Your task to perform on an android device: turn pop-ups off in chrome Image 0: 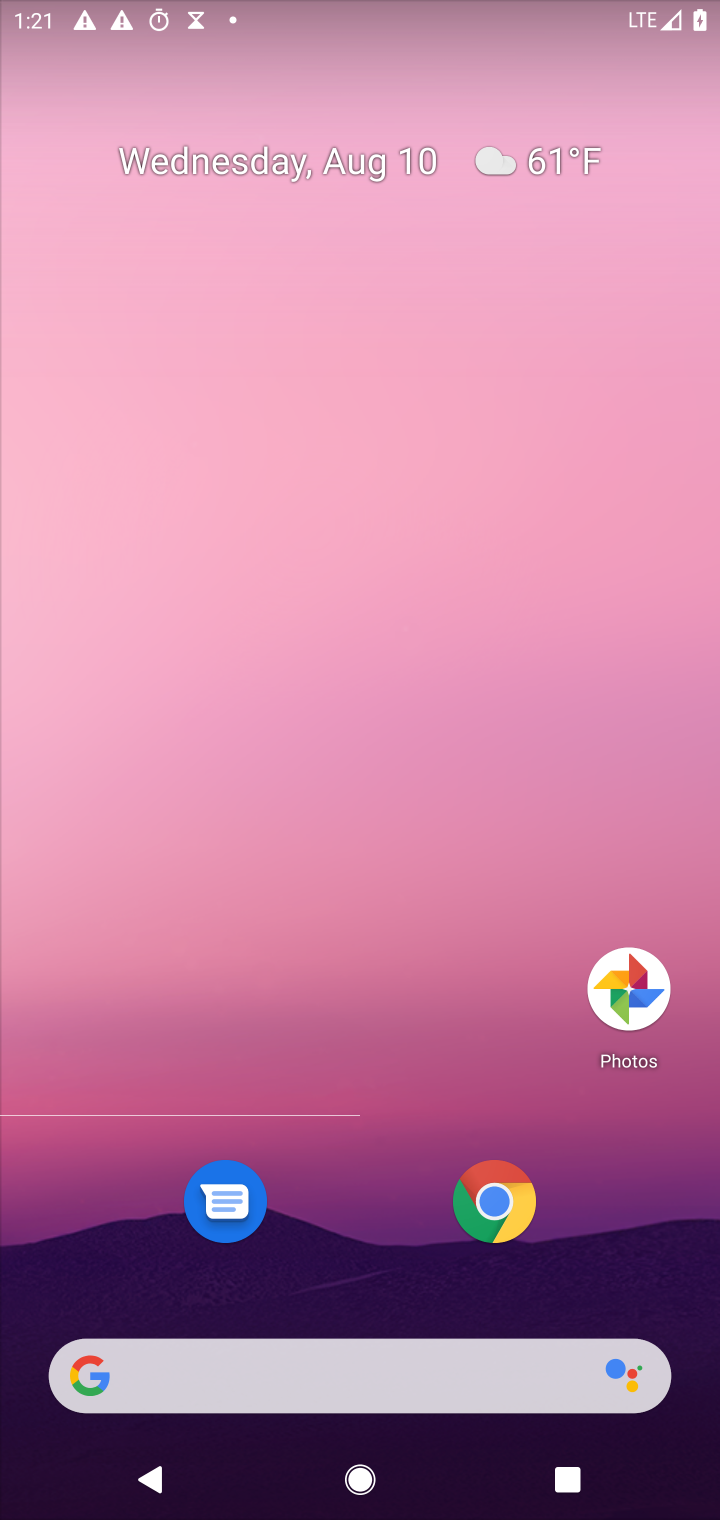
Step 0: press home button
Your task to perform on an android device: turn pop-ups off in chrome Image 1: 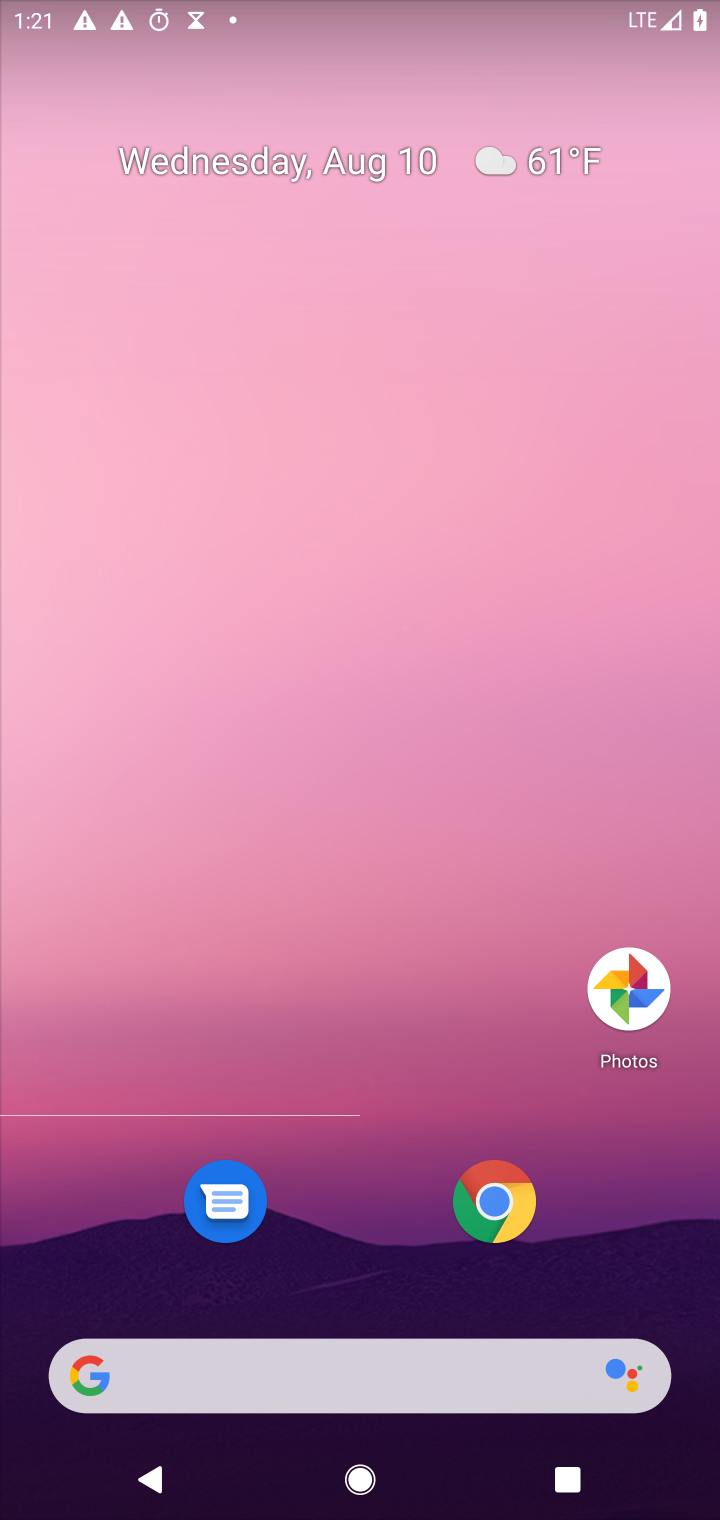
Step 1: click (464, 1190)
Your task to perform on an android device: turn pop-ups off in chrome Image 2: 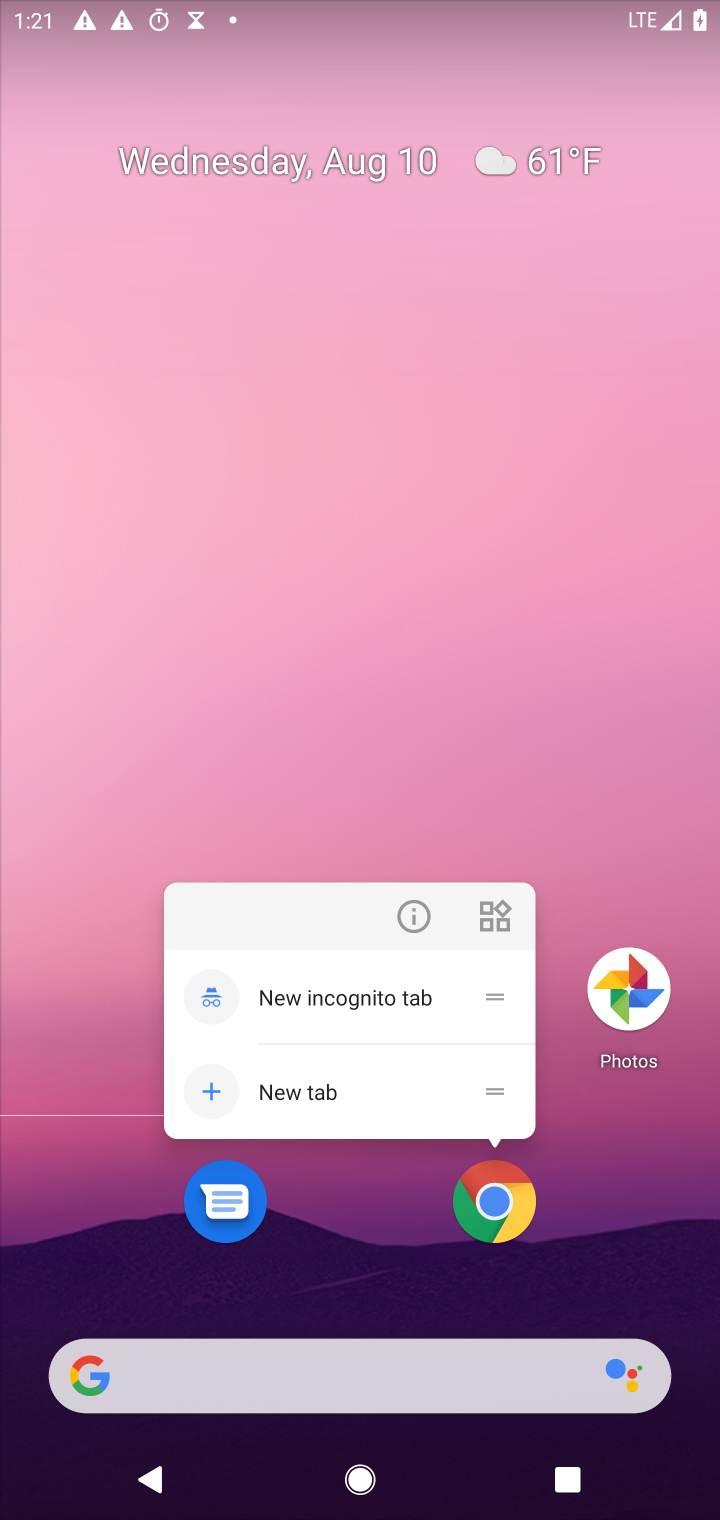
Step 2: click (468, 1177)
Your task to perform on an android device: turn pop-ups off in chrome Image 3: 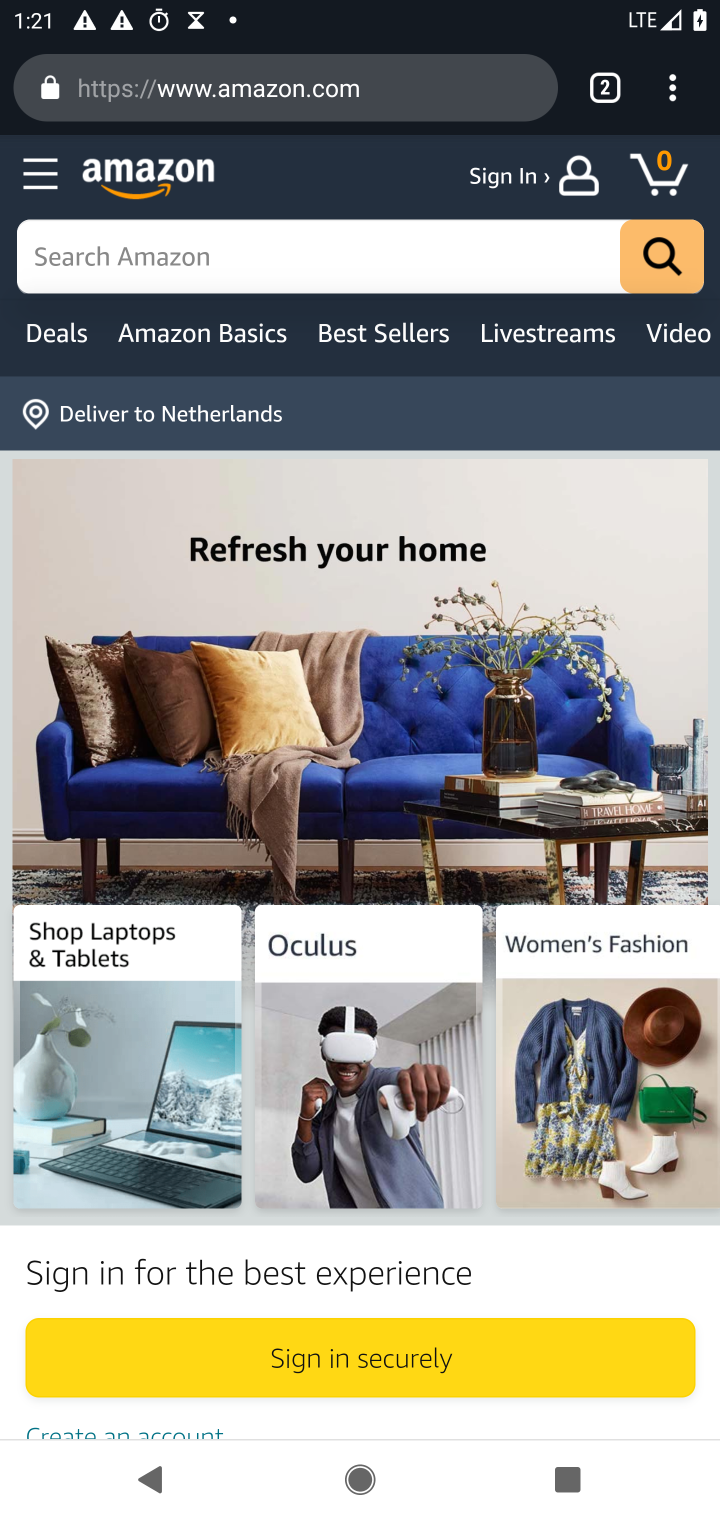
Step 3: drag from (670, 91) to (350, 1075)
Your task to perform on an android device: turn pop-ups off in chrome Image 4: 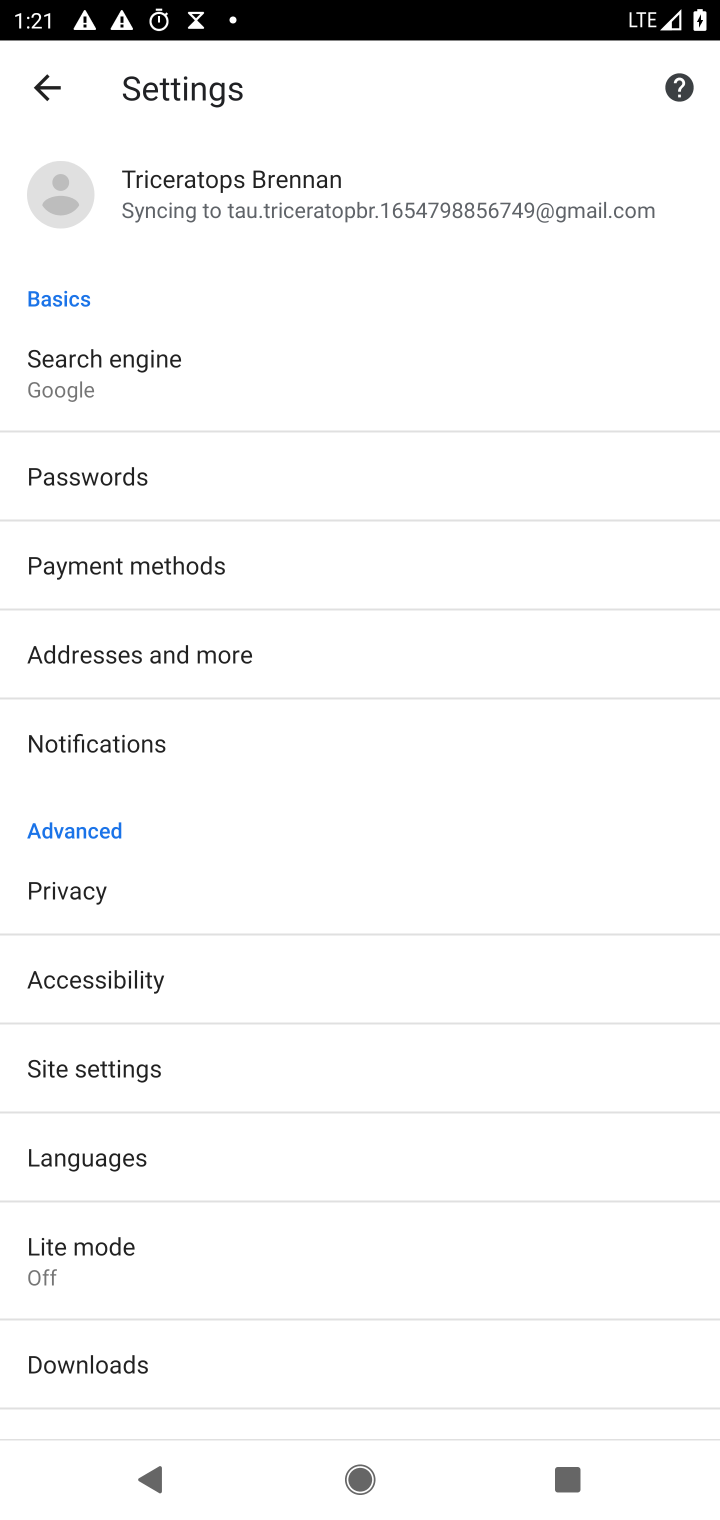
Step 4: click (81, 1072)
Your task to perform on an android device: turn pop-ups off in chrome Image 5: 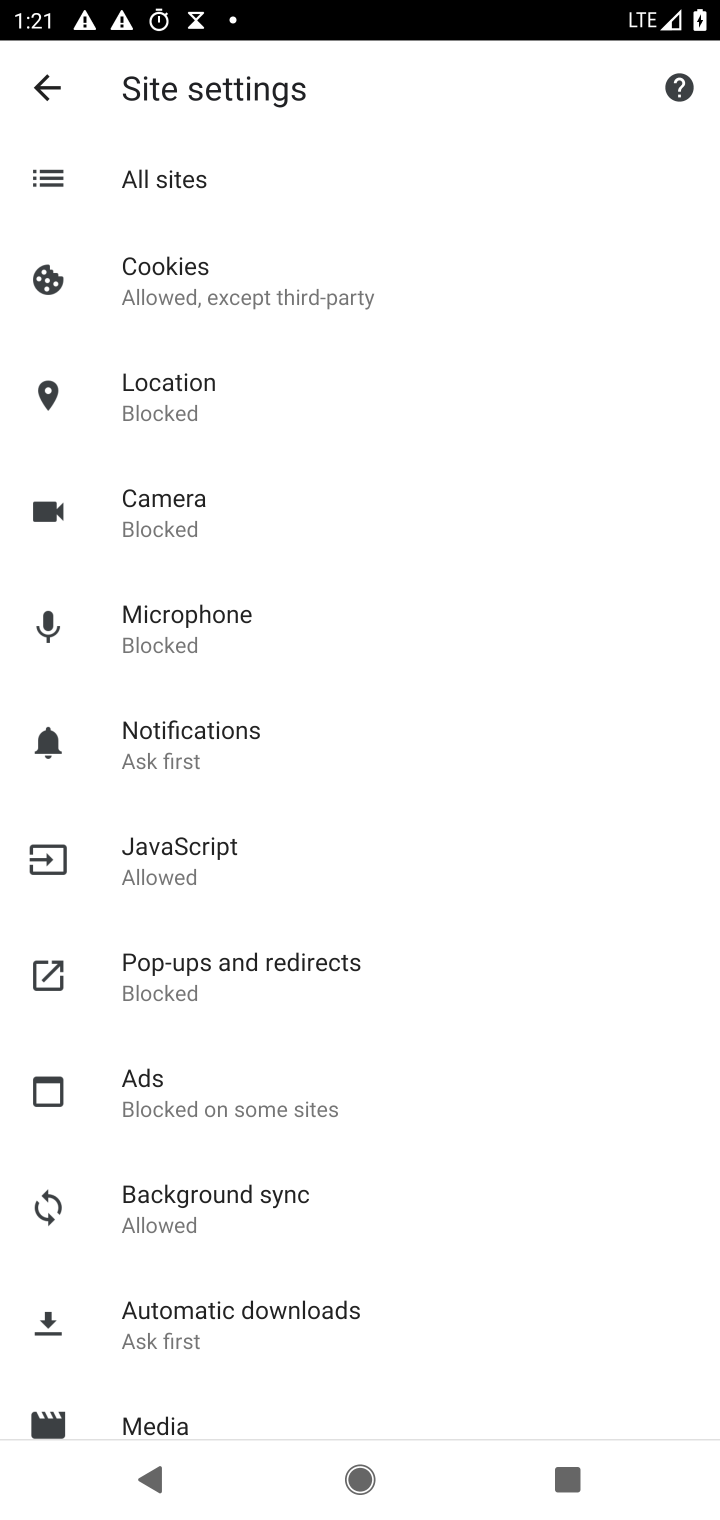
Step 5: click (223, 964)
Your task to perform on an android device: turn pop-ups off in chrome Image 6: 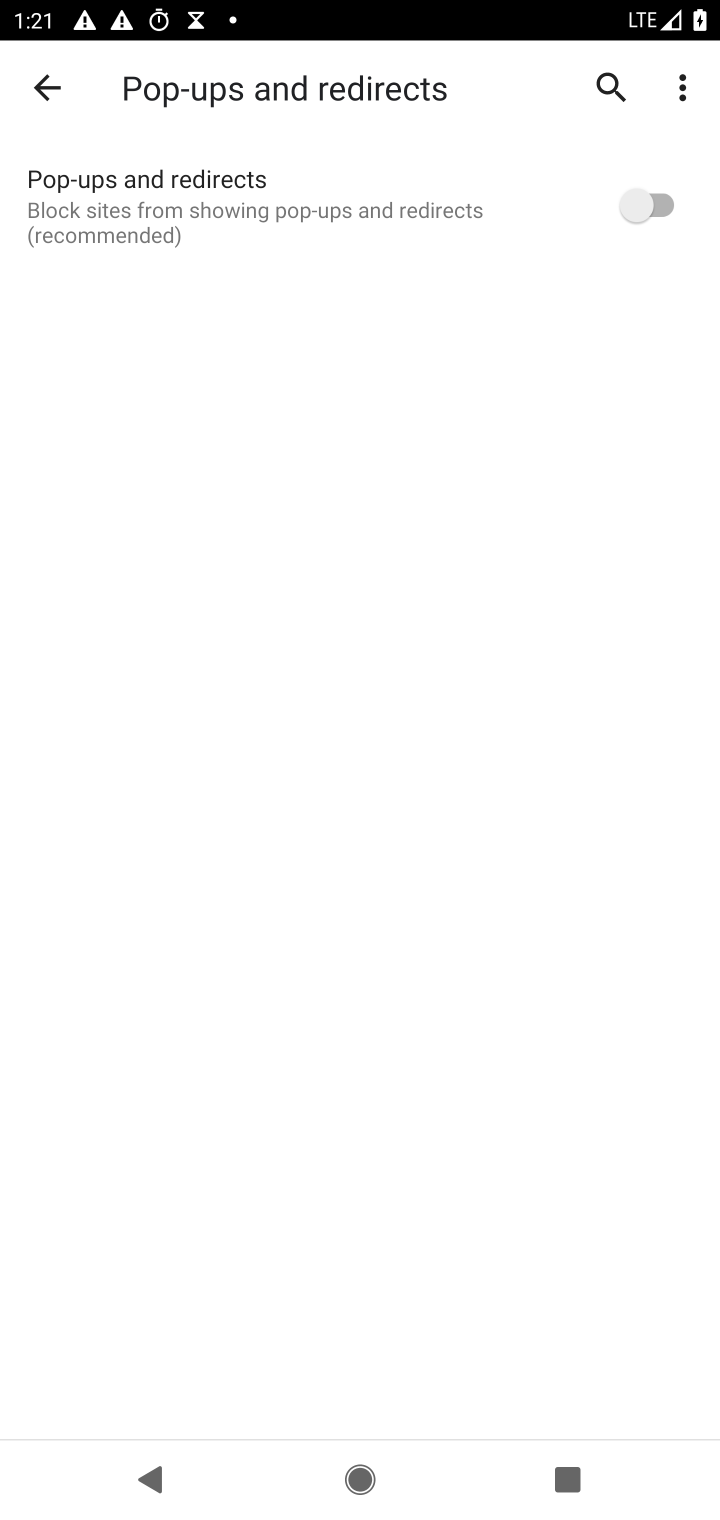
Step 6: task complete